Your task to perform on an android device: Search for sushi restaurants on Maps Image 0: 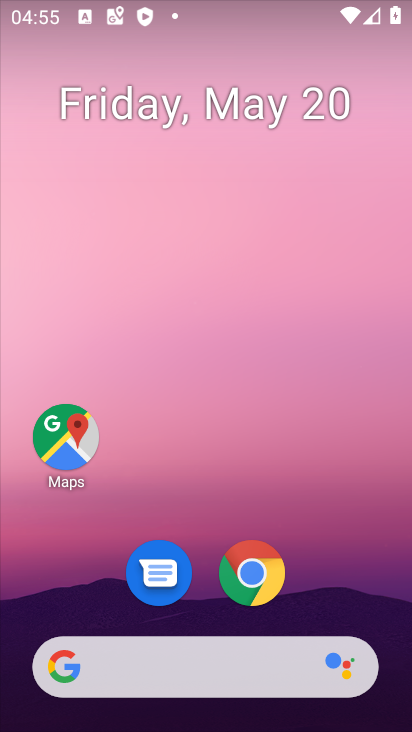
Step 0: click (69, 442)
Your task to perform on an android device: Search for sushi restaurants on Maps Image 1: 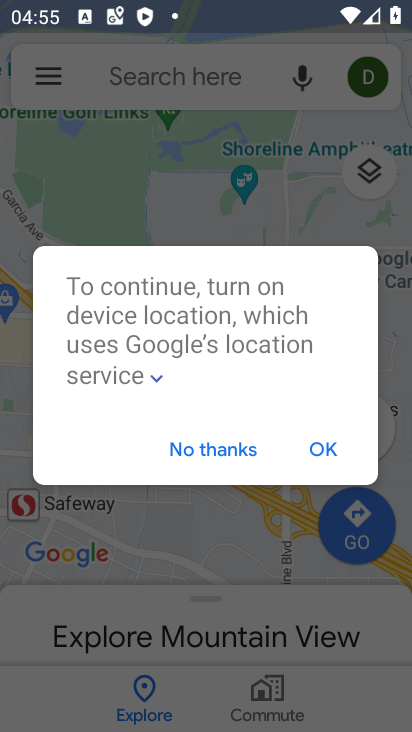
Step 1: click (325, 446)
Your task to perform on an android device: Search for sushi restaurants on Maps Image 2: 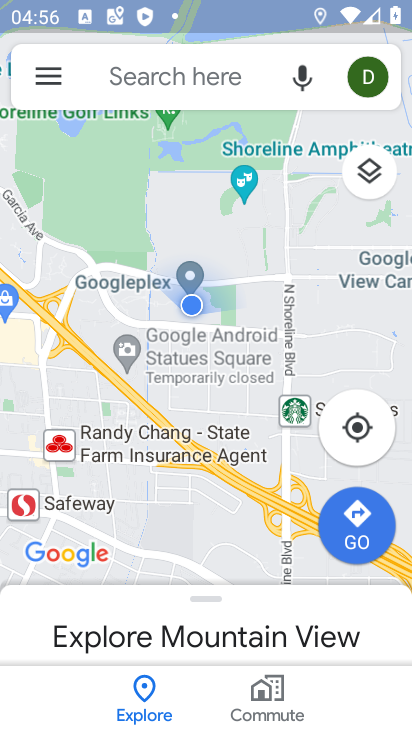
Step 2: click (167, 71)
Your task to perform on an android device: Search for sushi restaurants on Maps Image 3: 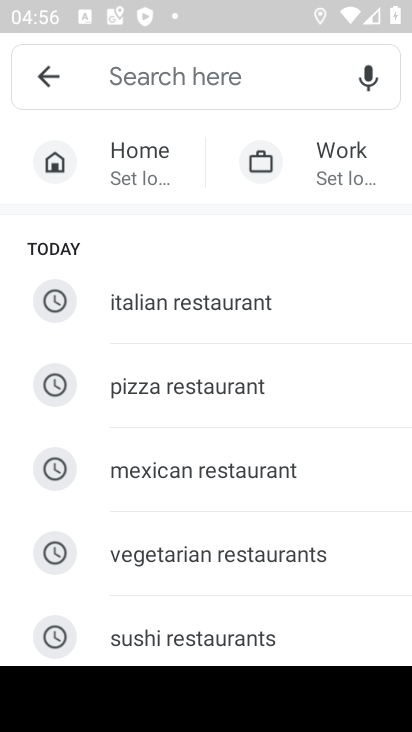
Step 3: type "sushi restaurants"
Your task to perform on an android device: Search for sushi restaurants on Maps Image 4: 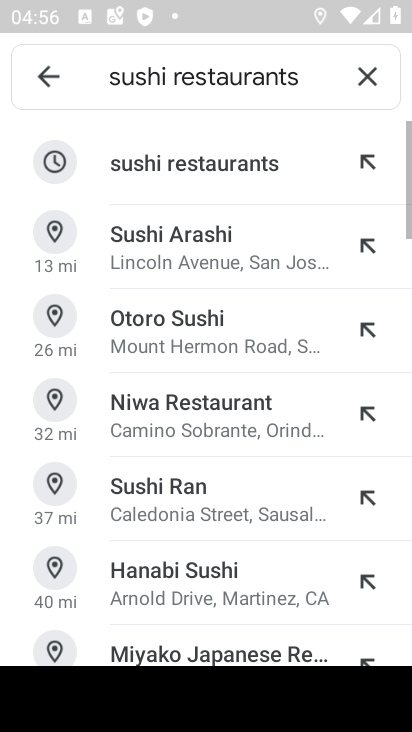
Step 4: click (191, 156)
Your task to perform on an android device: Search for sushi restaurants on Maps Image 5: 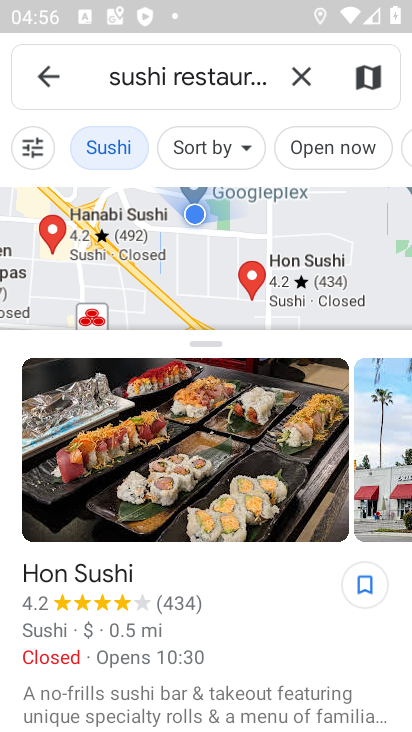
Step 5: task complete